Your task to perform on an android device: Show me the alarms in the clock app Image 0: 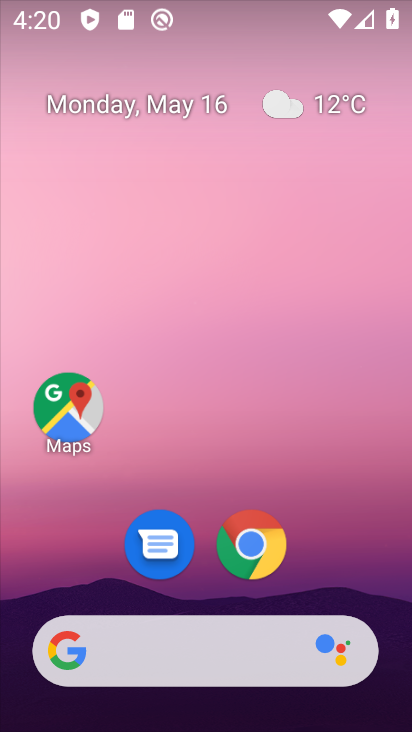
Step 0: drag from (339, 584) to (321, 92)
Your task to perform on an android device: Show me the alarms in the clock app Image 1: 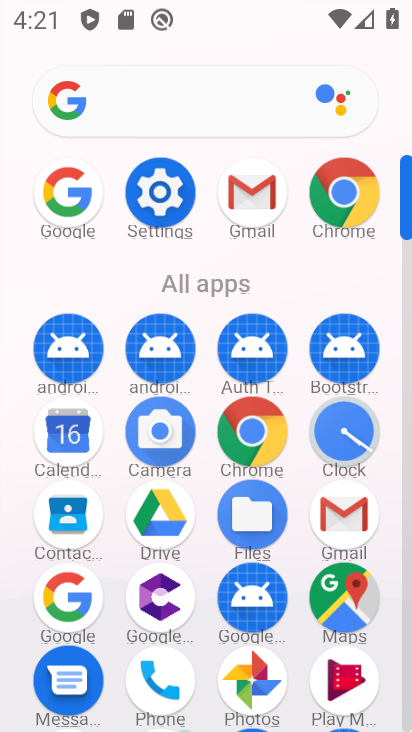
Step 1: click (344, 431)
Your task to perform on an android device: Show me the alarms in the clock app Image 2: 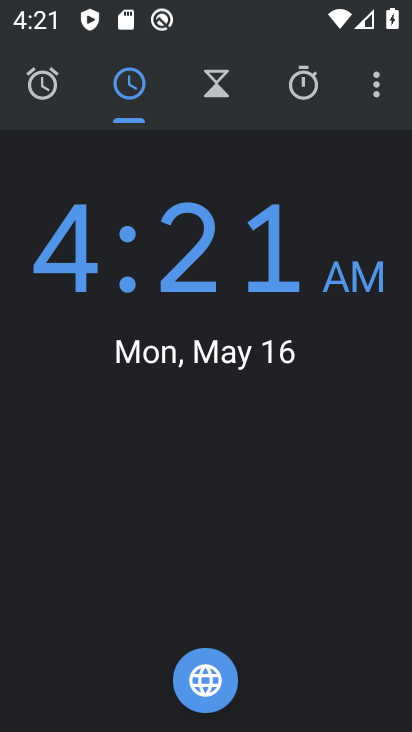
Step 2: click (54, 92)
Your task to perform on an android device: Show me the alarms in the clock app Image 3: 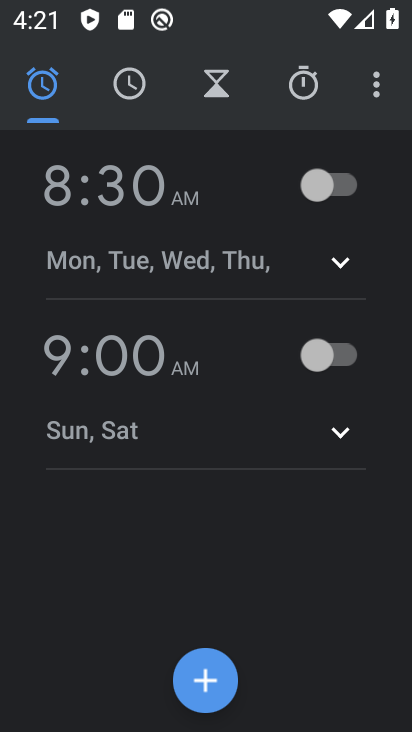
Step 3: task complete